Your task to perform on an android device: change the clock display to analog Image 0: 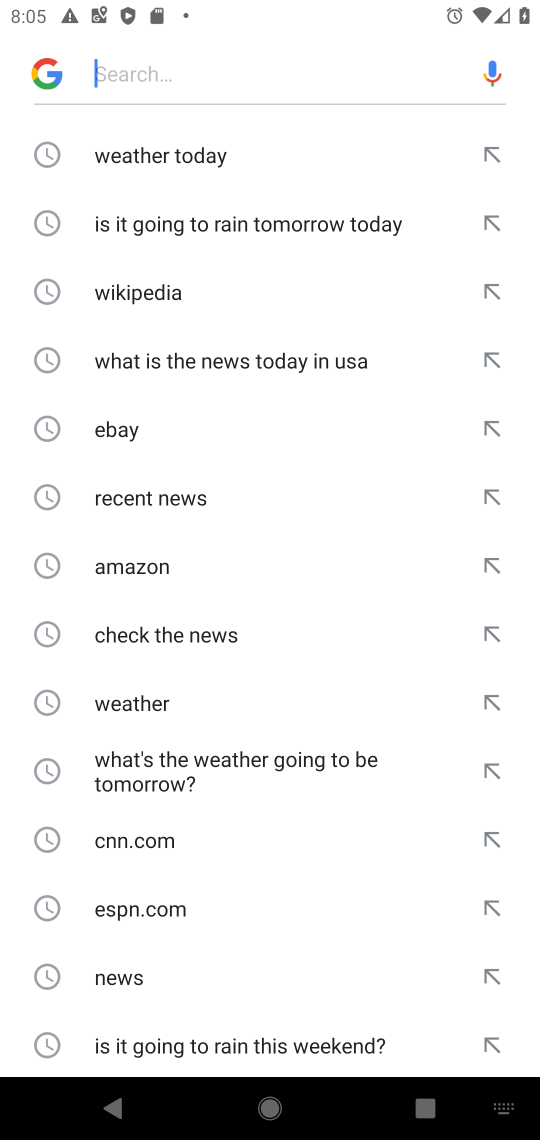
Step 0: press home button
Your task to perform on an android device: change the clock display to analog Image 1: 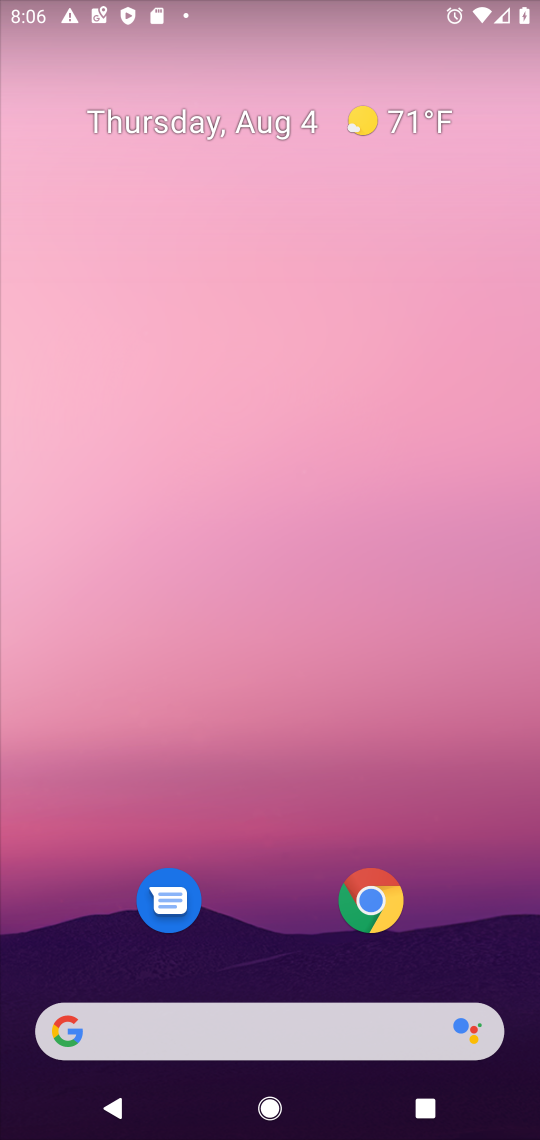
Step 1: drag from (247, 1017) to (457, 72)
Your task to perform on an android device: change the clock display to analog Image 2: 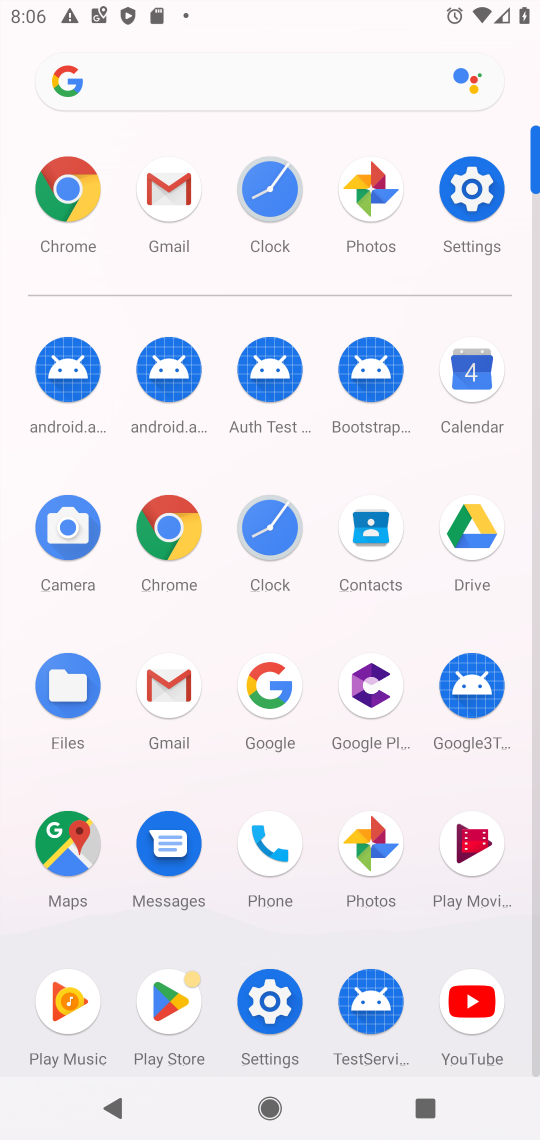
Step 2: click (269, 530)
Your task to perform on an android device: change the clock display to analog Image 3: 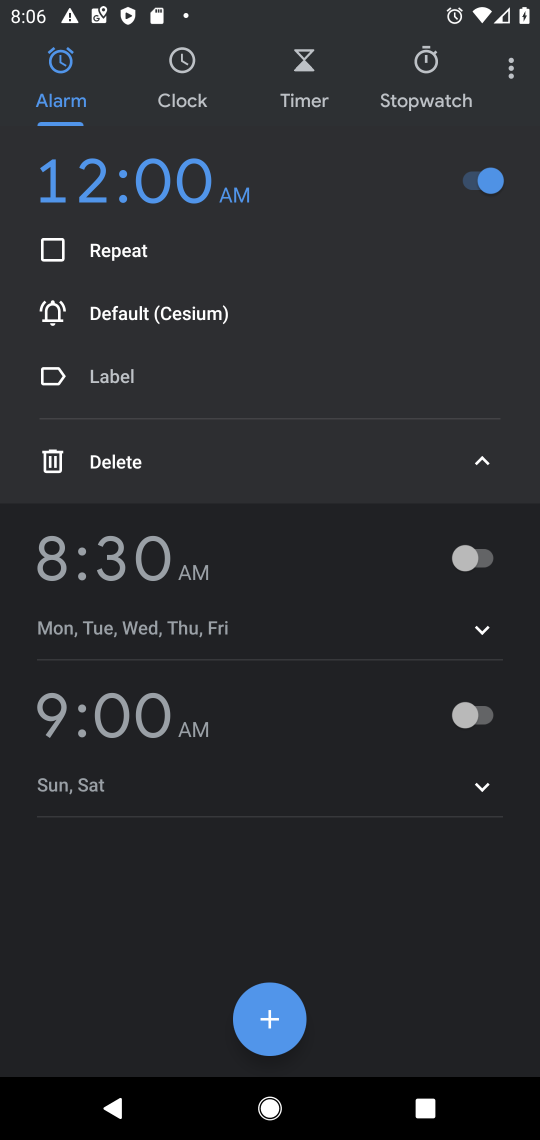
Step 3: click (513, 70)
Your task to perform on an android device: change the clock display to analog Image 4: 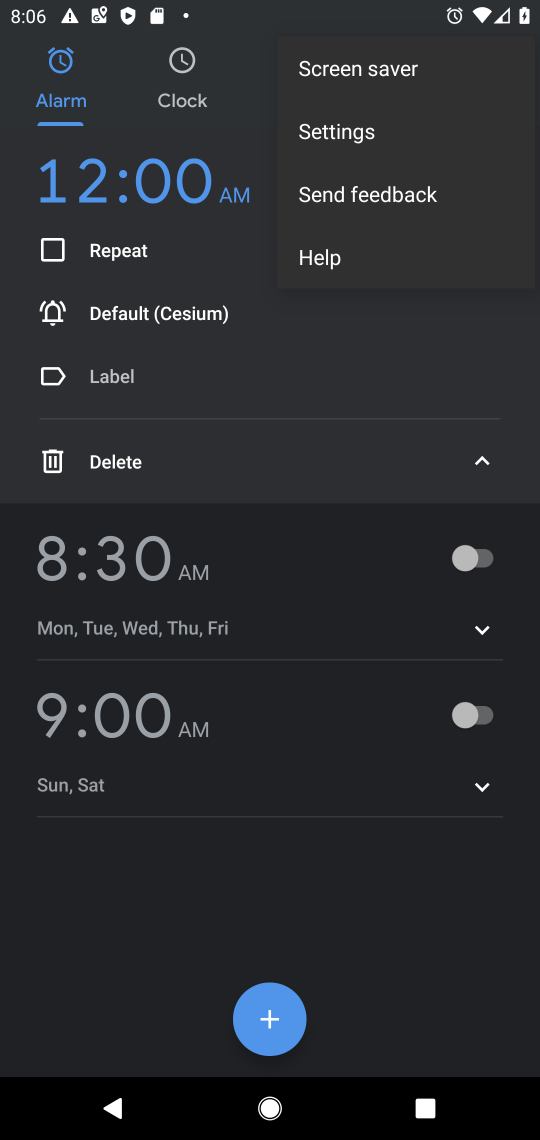
Step 4: click (349, 133)
Your task to perform on an android device: change the clock display to analog Image 5: 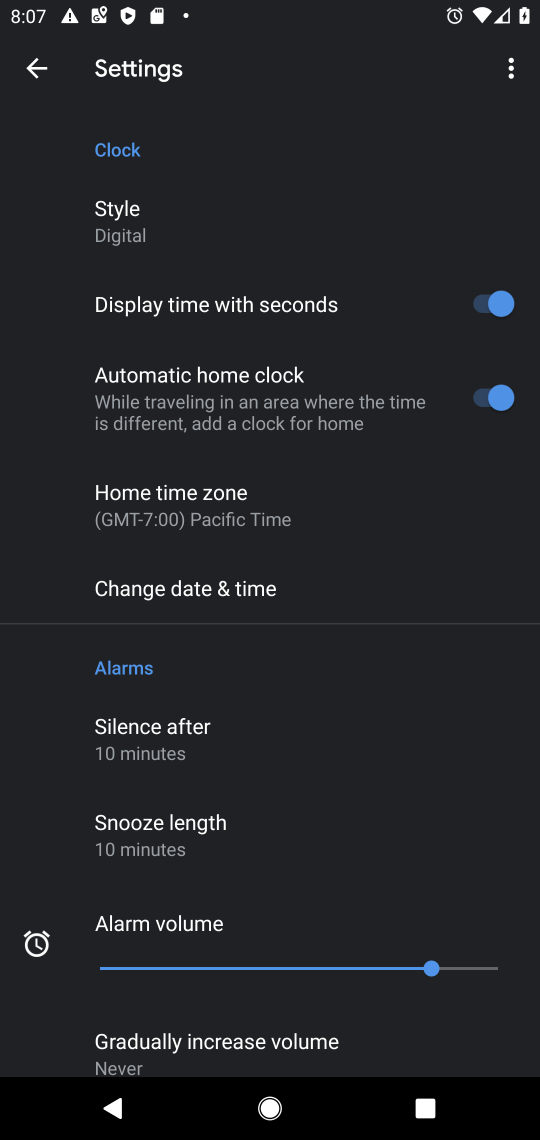
Step 5: click (138, 211)
Your task to perform on an android device: change the clock display to analog Image 6: 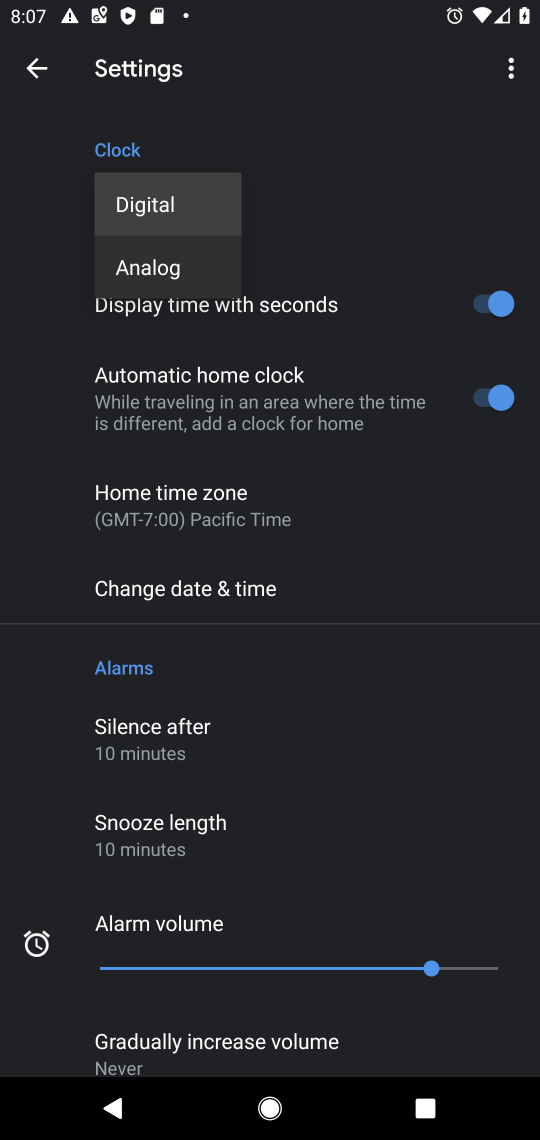
Step 6: click (161, 275)
Your task to perform on an android device: change the clock display to analog Image 7: 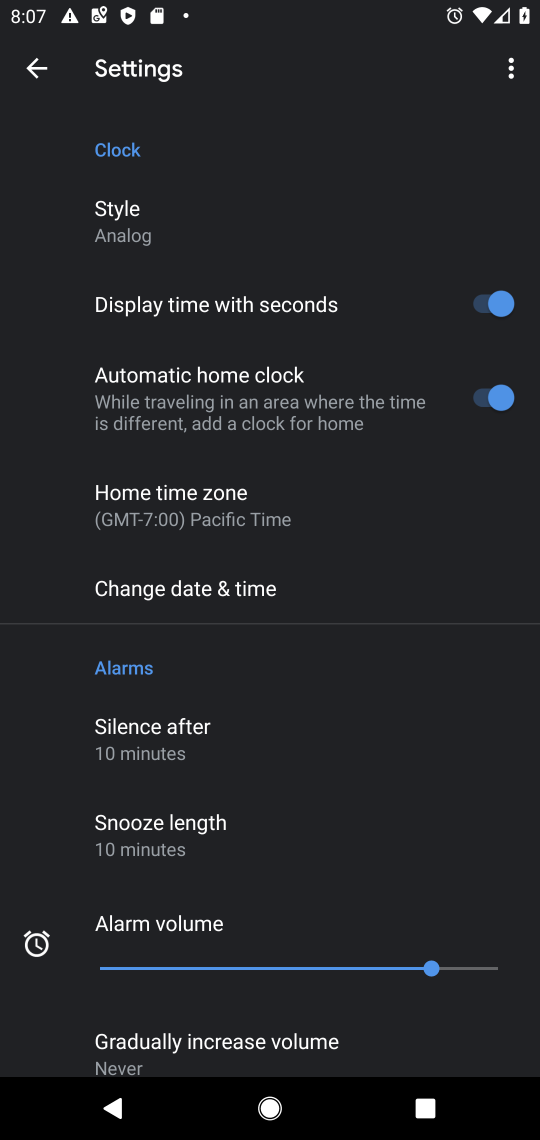
Step 7: task complete